Your task to perform on an android device: Open ESPN.com Image 0: 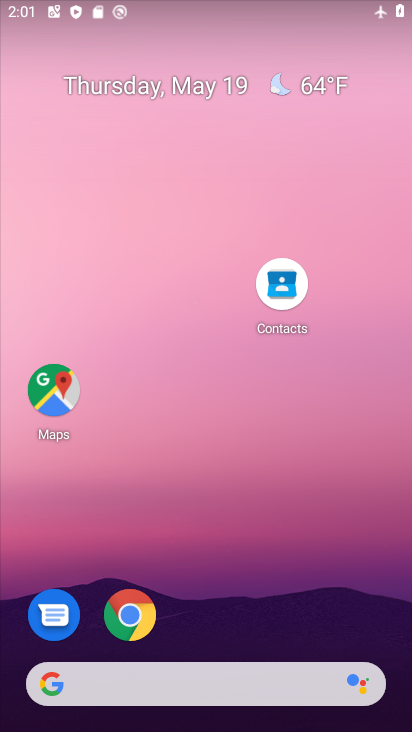
Step 0: click (132, 607)
Your task to perform on an android device: Open ESPN.com Image 1: 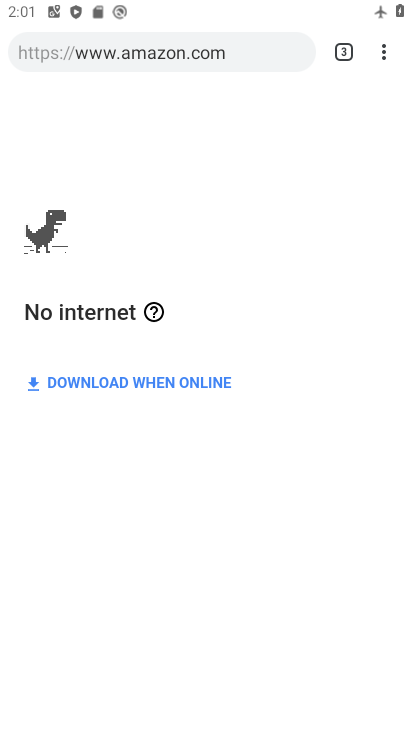
Step 1: click (244, 57)
Your task to perform on an android device: Open ESPN.com Image 2: 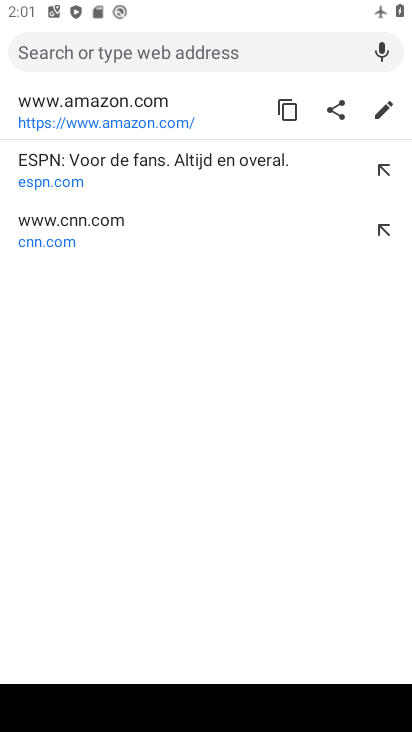
Step 2: click (128, 186)
Your task to perform on an android device: Open ESPN.com Image 3: 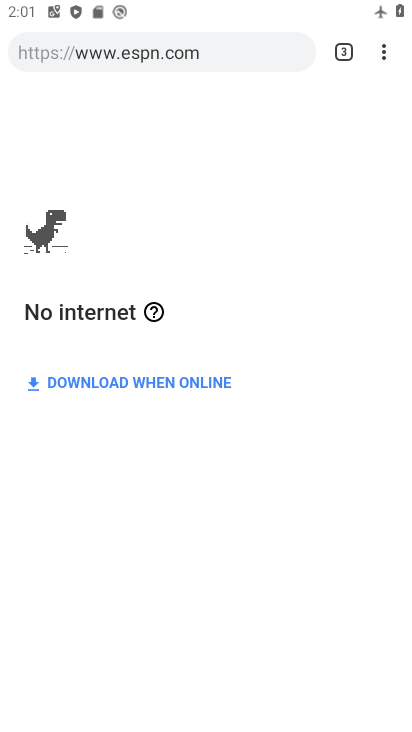
Step 3: task complete